Your task to perform on an android device: Go to privacy settings Image 0: 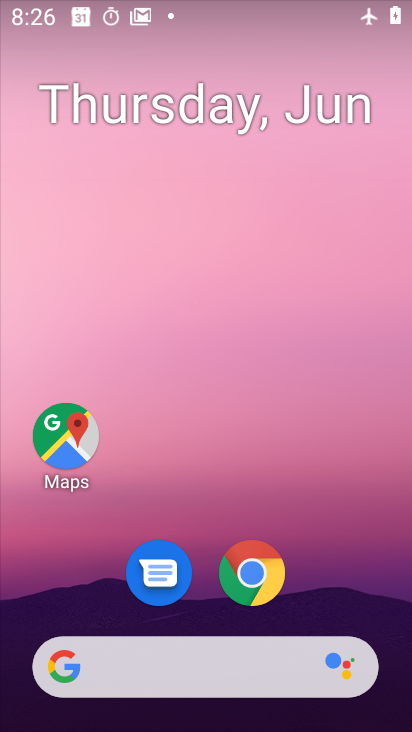
Step 0: drag from (275, 585) to (288, 225)
Your task to perform on an android device: Go to privacy settings Image 1: 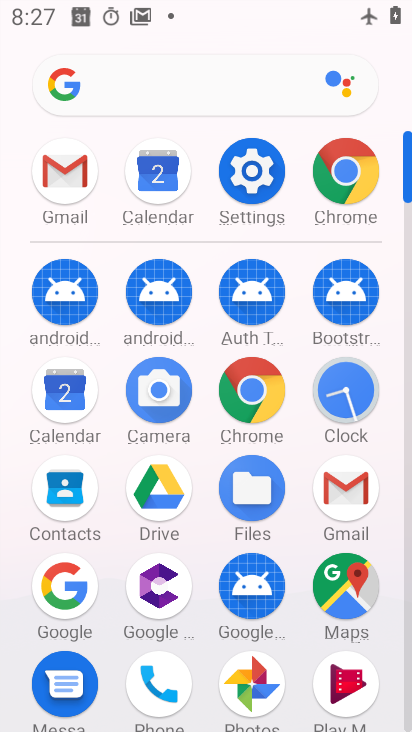
Step 1: click (202, 171)
Your task to perform on an android device: Go to privacy settings Image 2: 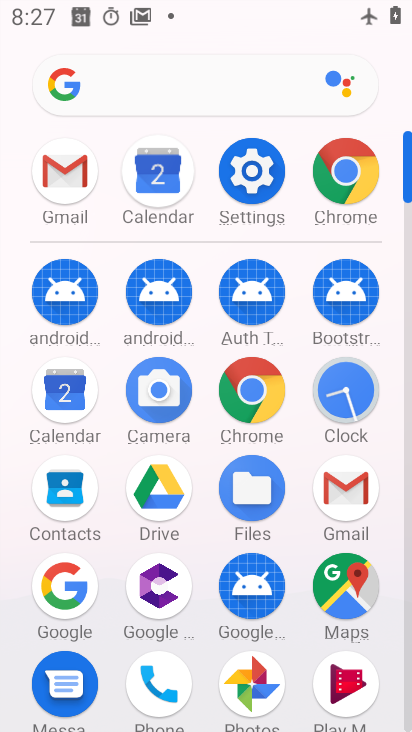
Step 2: click (263, 167)
Your task to perform on an android device: Go to privacy settings Image 3: 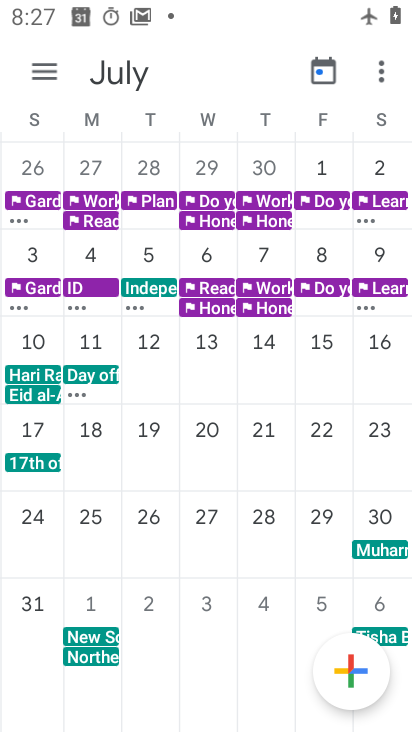
Step 3: press home button
Your task to perform on an android device: Go to privacy settings Image 4: 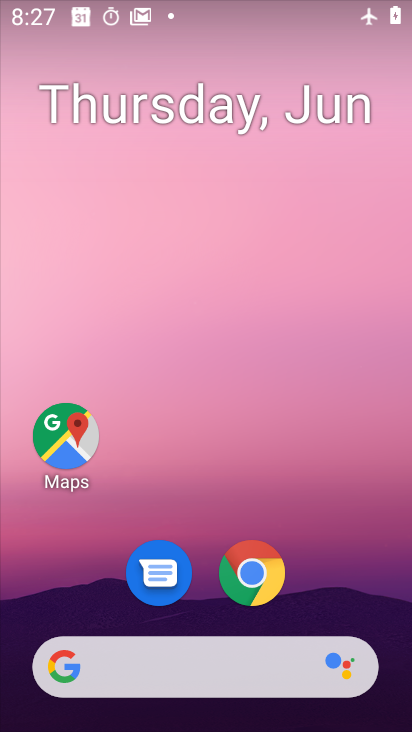
Step 4: drag from (198, 570) to (252, 168)
Your task to perform on an android device: Go to privacy settings Image 5: 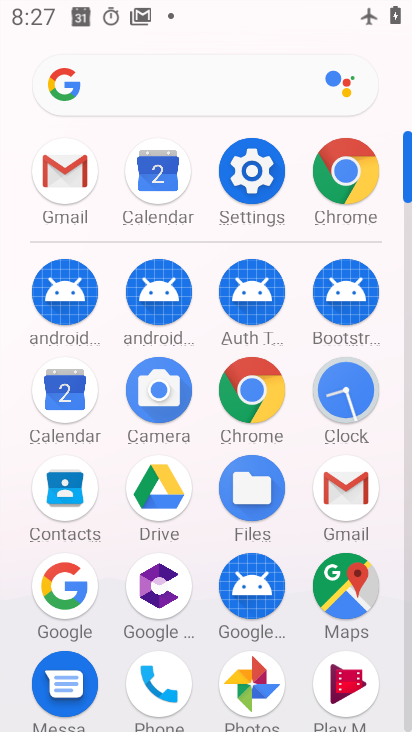
Step 5: click (250, 154)
Your task to perform on an android device: Go to privacy settings Image 6: 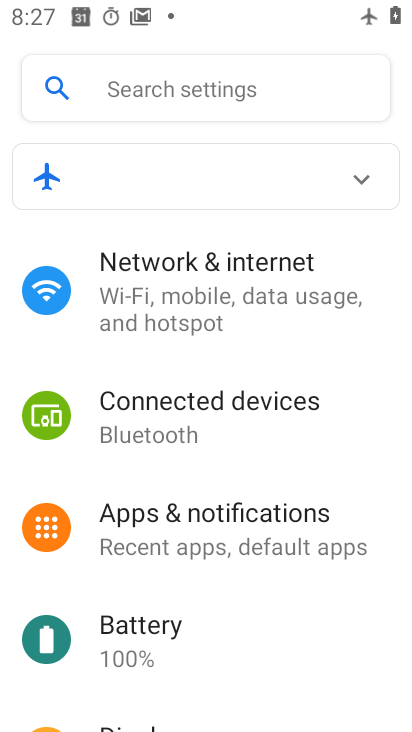
Step 6: drag from (213, 615) to (247, 282)
Your task to perform on an android device: Go to privacy settings Image 7: 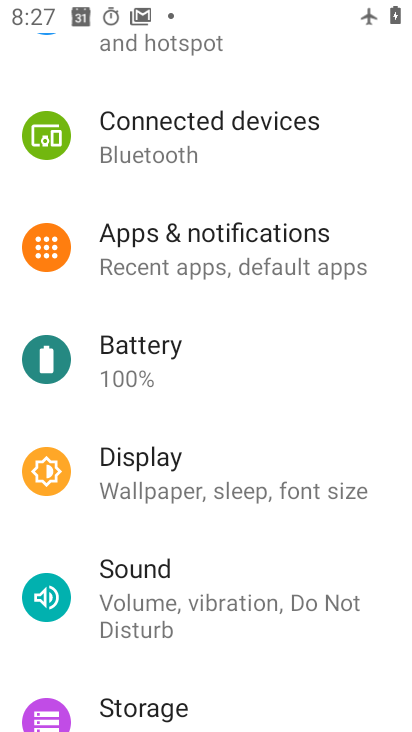
Step 7: drag from (176, 623) to (196, 305)
Your task to perform on an android device: Go to privacy settings Image 8: 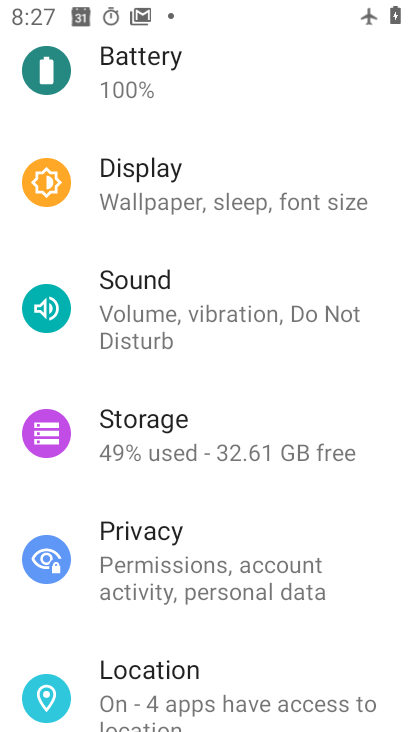
Step 8: click (172, 554)
Your task to perform on an android device: Go to privacy settings Image 9: 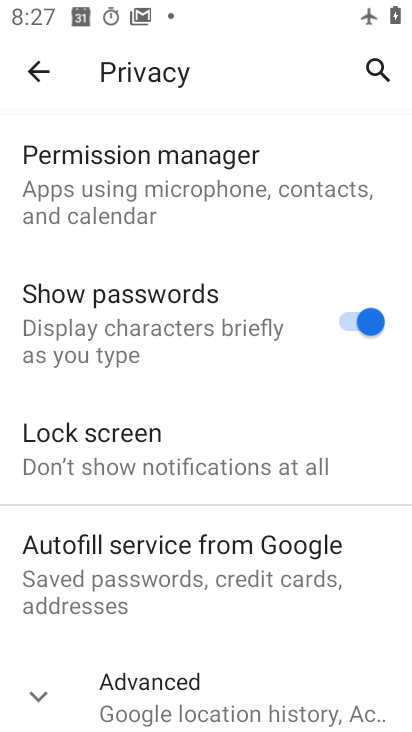
Step 9: task complete